Your task to perform on an android device: Open calendar and show me the first week of next month Image 0: 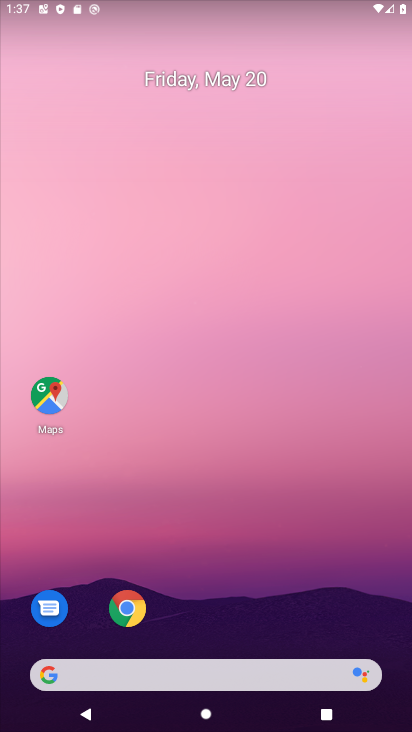
Step 0: drag from (184, 613) to (272, 132)
Your task to perform on an android device: Open calendar and show me the first week of next month Image 1: 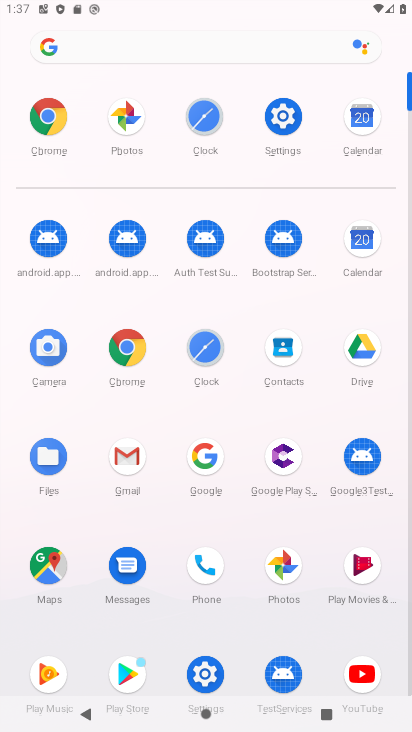
Step 1: click (364, 241)
Your task to perform on an android device: Open calendar and show me the first week of next month Image 2: 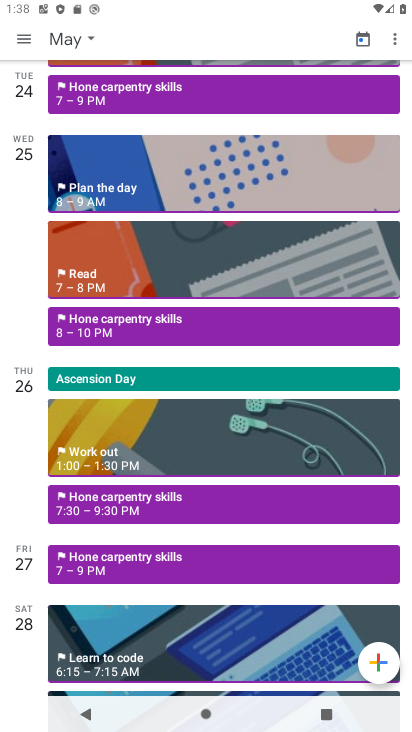
Step 2: click (77, 39)
Your task to perform on an android device: Open calendar and show me the first week of next month Image 3: 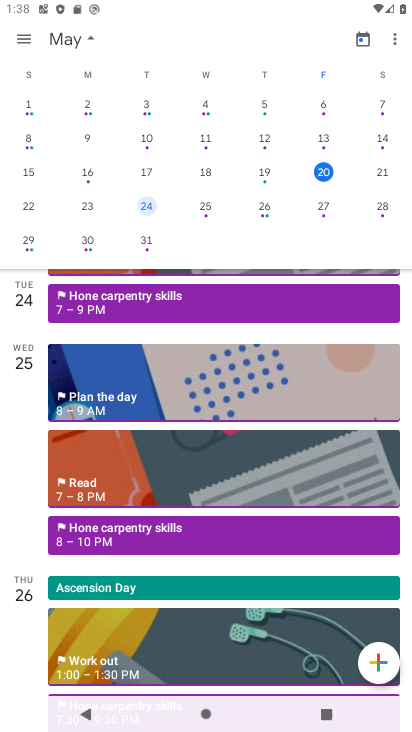
Step 3: task complete